Your task to perform on an android device: Open Chrome and go to the settings page Image 0: 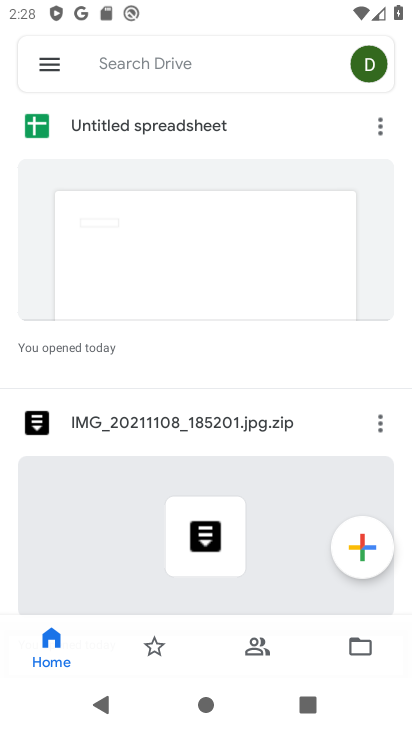
Step 0: press home button
Your task to perform on an android device: Open Chrome and go to the settings page Image 1: 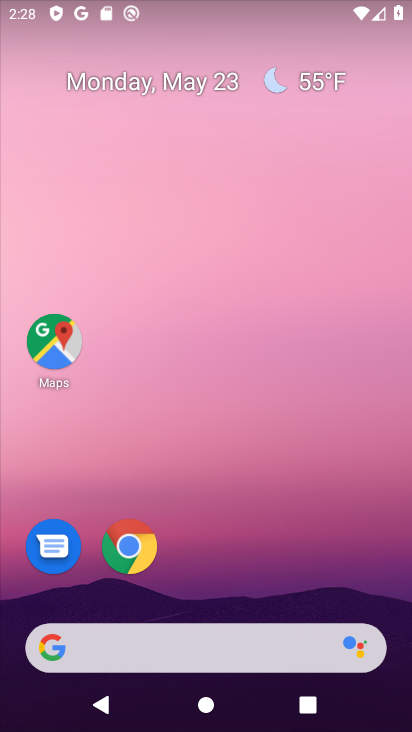
Step 1: drag from (364, 577) to (322, 206)
Your task to perform on an android device: Open Chrome and go to the settings page Image 2: 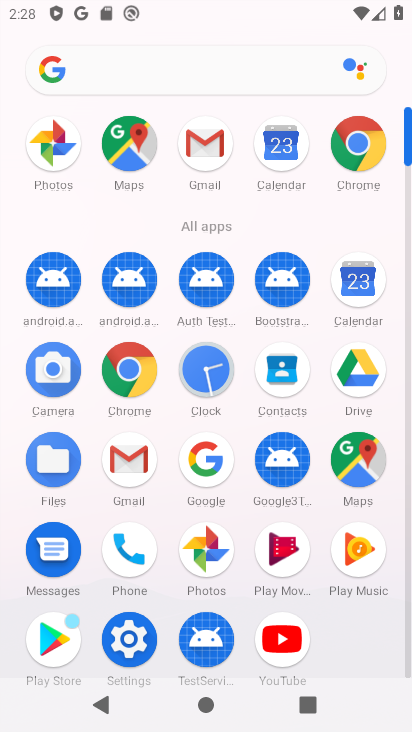
Step 2: click (110, 641)
Your task to perform on an android device: Open Chrome and go to the settings page Image 3: 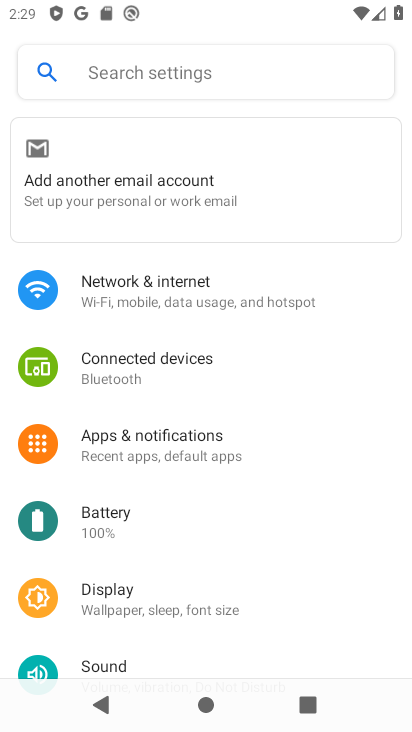
Step 3: press home button
Your task to perform on an android device: Open Chrome and go to the settings page Image 4: 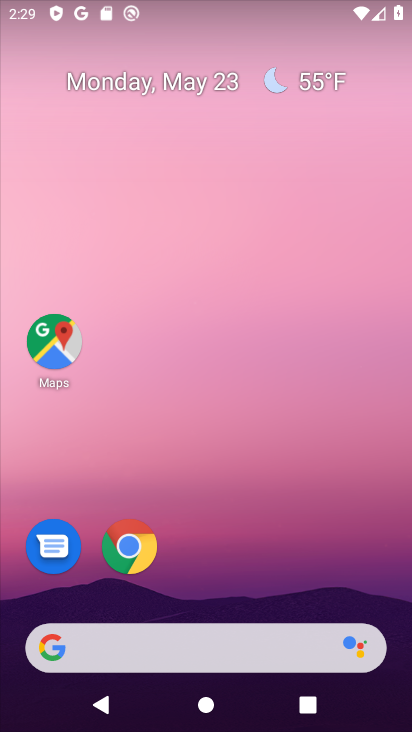
Step 4: click (109, 542)
Your task to perform on an android device: Open Chrome and go to the settings page Image 5: 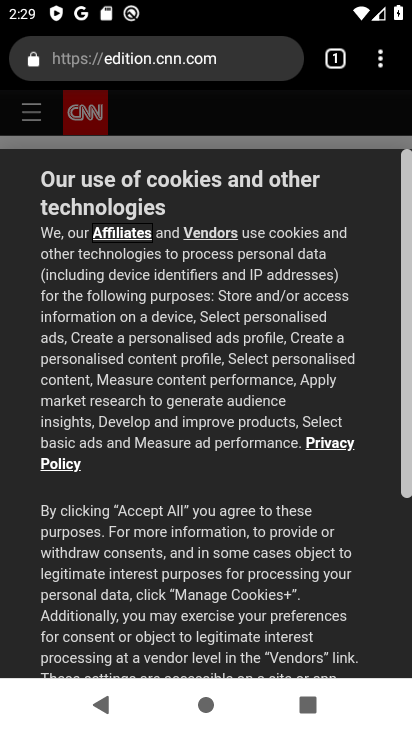
Step 5: task complete